Your task to perform on an android device: check storage Image 0: 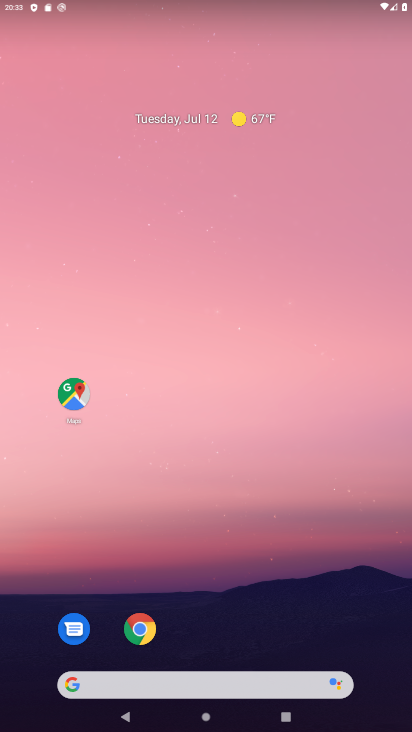
Step 0: drag from (229, 720) to (274, 4)
Your task to perform on an android device: check storage Image 1: 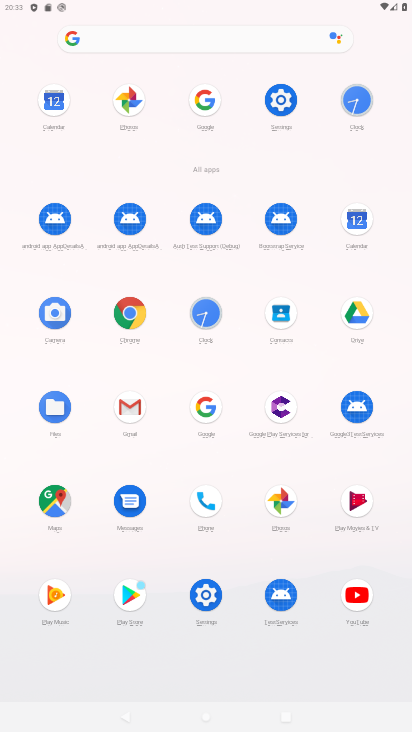
Step 1: click (286, 100)
Your task to perform on an android device: check storage Image 2: 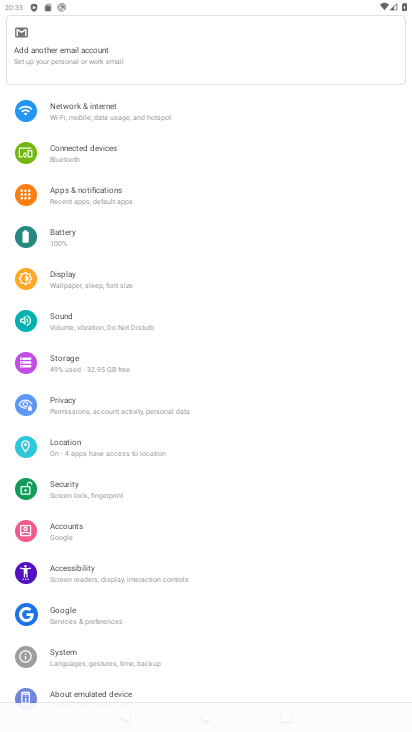
Step 2: click (78, 355)
Your task to perform on an android device: check storage Image 3: 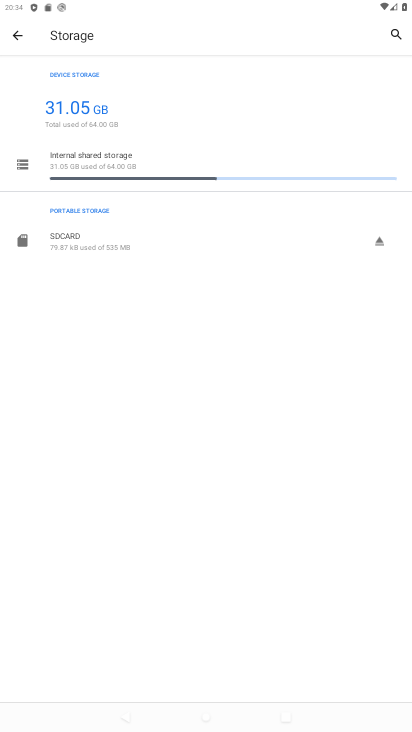
Step 3: task complete